Your task to perform on an android device: Open calendar and show me the third week of next month Image 0: 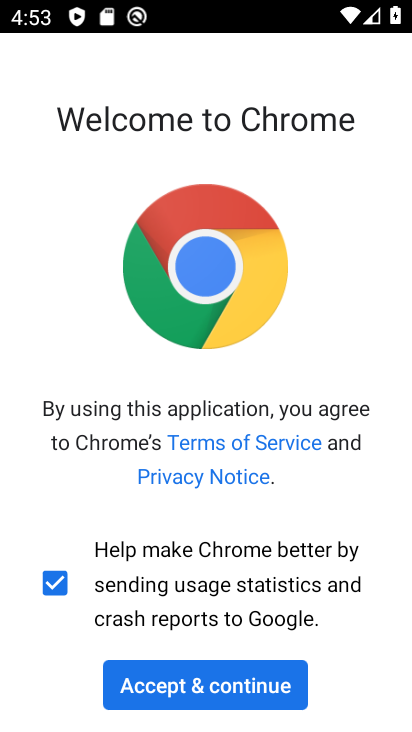
Step 0: press back button
Your task to perform on an android device: Open calendar and show me the third week of next month Image 1: 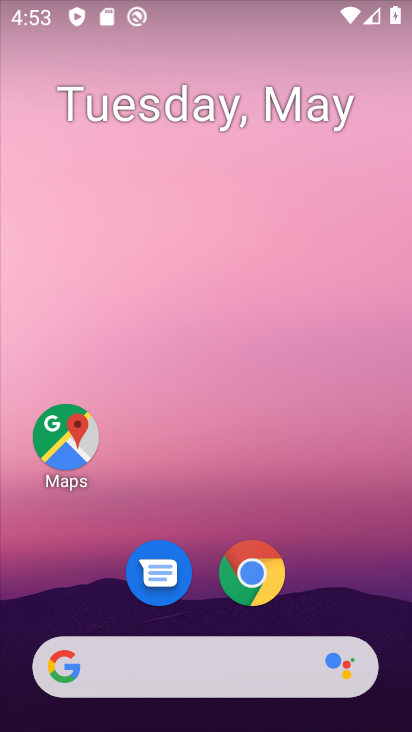
Step 1: click (183, 664)
Your task to perform on an android device: Open calendar and show me the third week of next month Image 2: 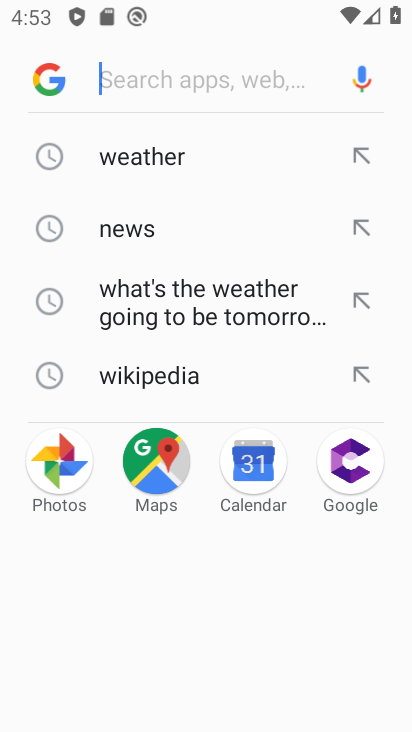
Step 2: press back button
Your task to perform on an android device: Open calendar and show me the third week of next month Image 3: 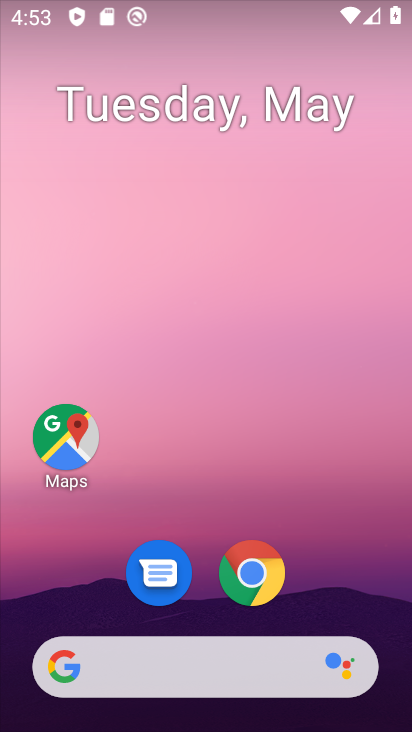
Step 3: drag from (293, 500) to (350, 73)
Your task to perform on an android device: Open calendar and show me the third week of next month Image 4: 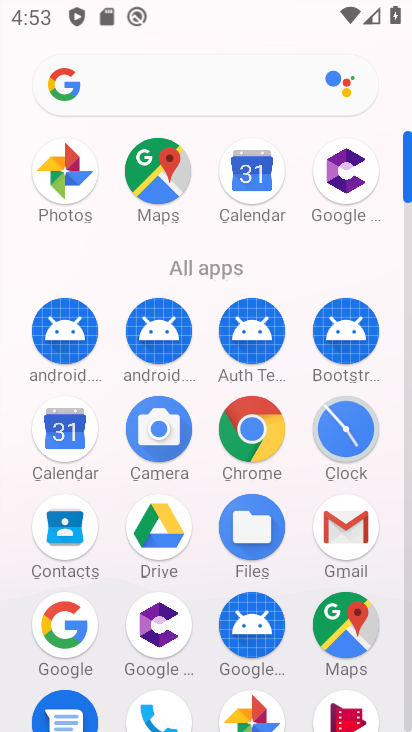
Step 4: click (58, 444)
Your task to perform on an android device: Open calendar and show me the third week of next month Image 5: 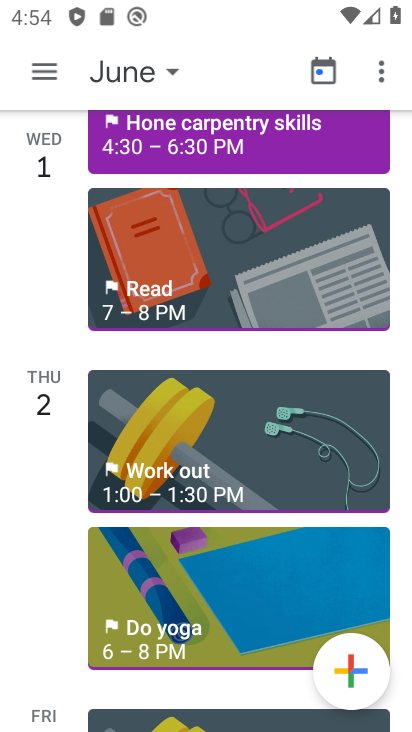
Step 5: click (168, 66)
Your task to perform on an android device: Open calendar and show me the third week of next month Image 6: 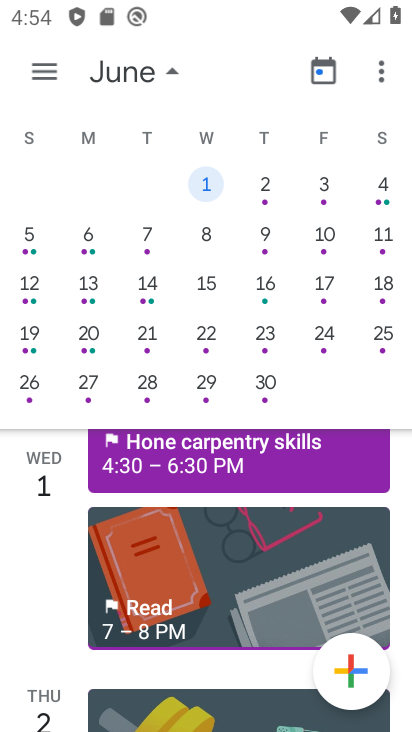
Step 6: click (73, 278)
Your task to perform on an android device: Open calendar and show me the third week of next month Image 7: 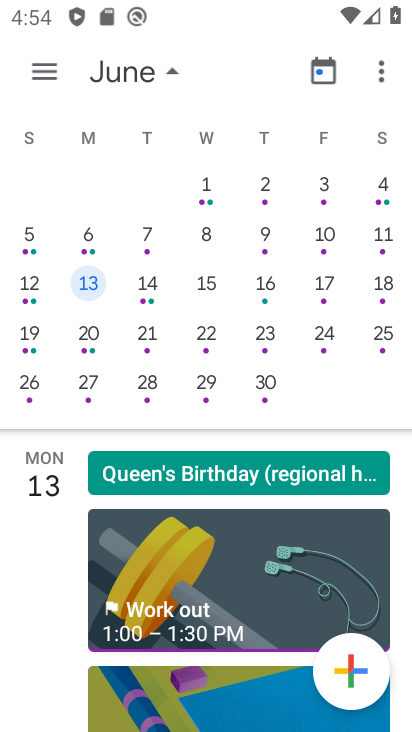
Step 7: task complete